Your task to perform on an android device: Open Chrome and go to the settings page Image 0: 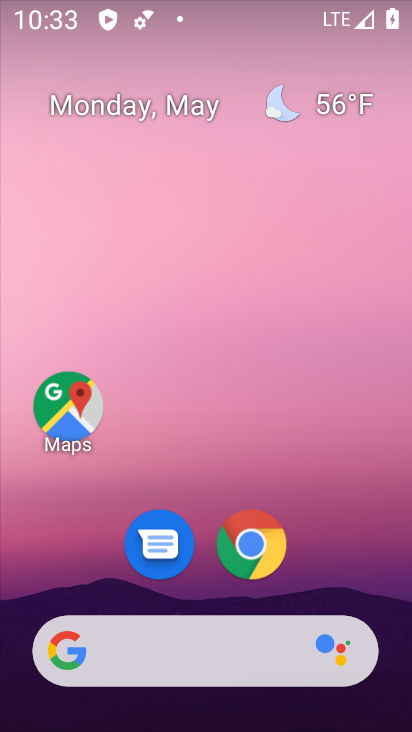
Step 0: click (251, 546)
Your task to perform on an android device: Open Chrome and go to the settings page Image 1: 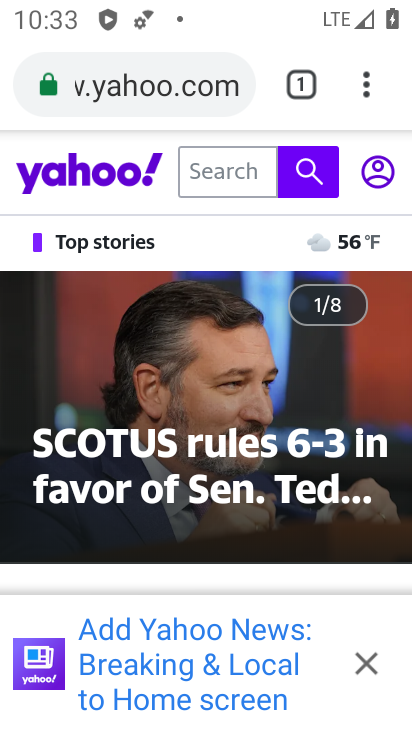
Step 1: click (367, 84)
Your task to perform on an android device: Open Chrome and go to the settings page Image 2: 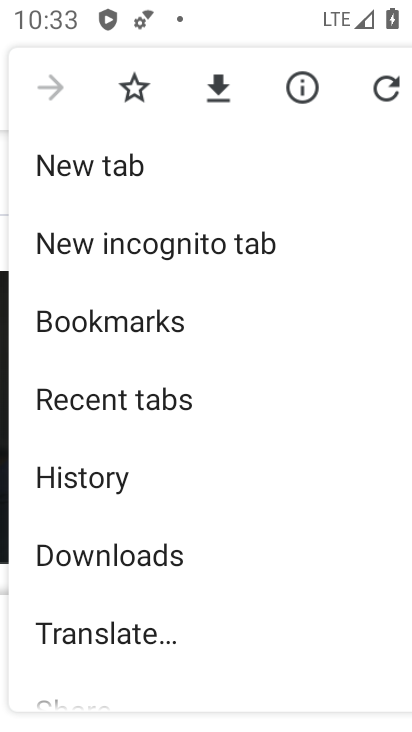
Step 2: drag from (188, 497) to (251, 413)
Your task to perform on an android device: Open Chrome and go to the settings page Image 3: 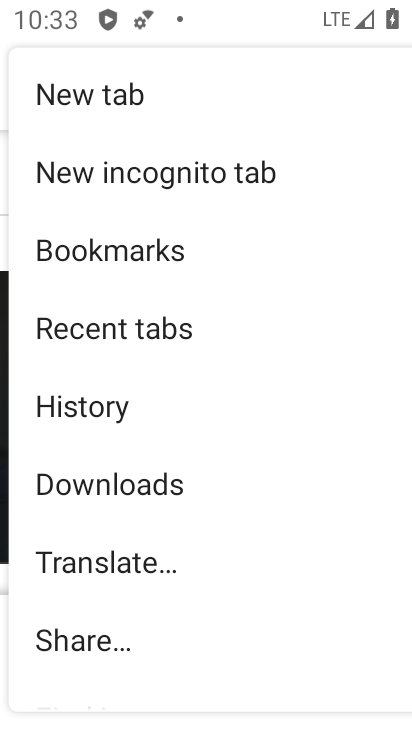
Step 3: drag from (226, 557) to (257, 479)
Your task to perform on an android device: Open Chrome and go to the settings page Image 4: 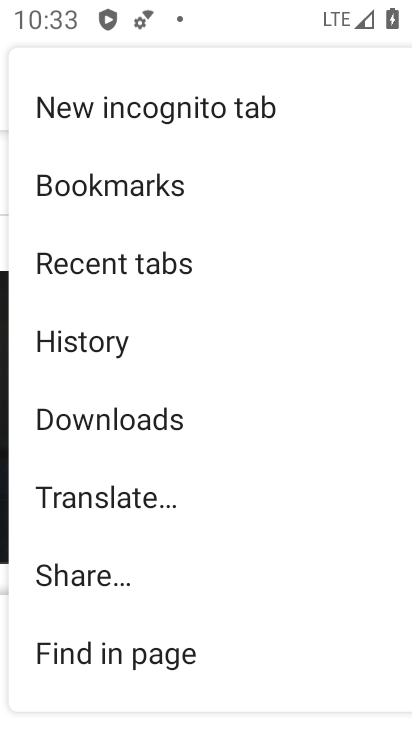
Step 4: drag from (179, 563) to (279, 370)
Your task to perform on an android device: Open Chrome and go to the settings page Image 5: 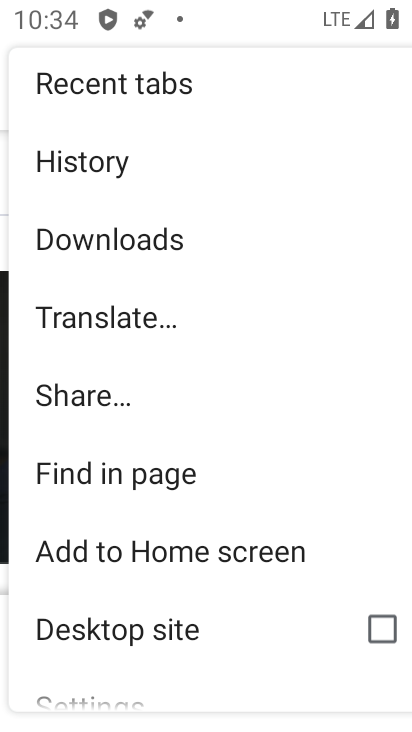
Step 5: drag from (164, 596) to (270, 374)
Your task to perform on an android device: Open Chrome and go to the settings page Image 6: 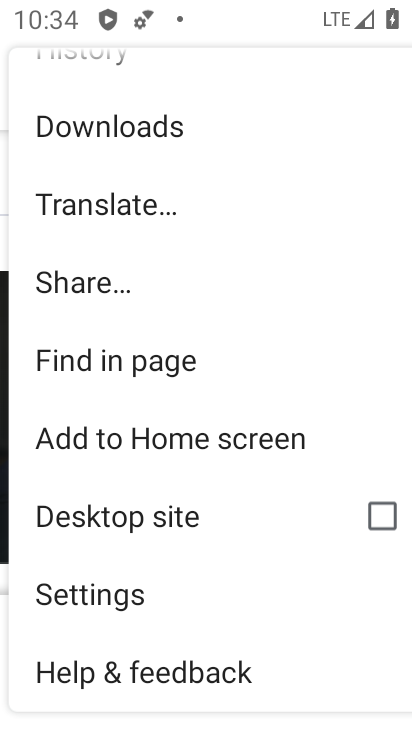
Step 6: click (77, 600)
Your task to perform on an android device: Open Chrome and go to the settings page Image 7: 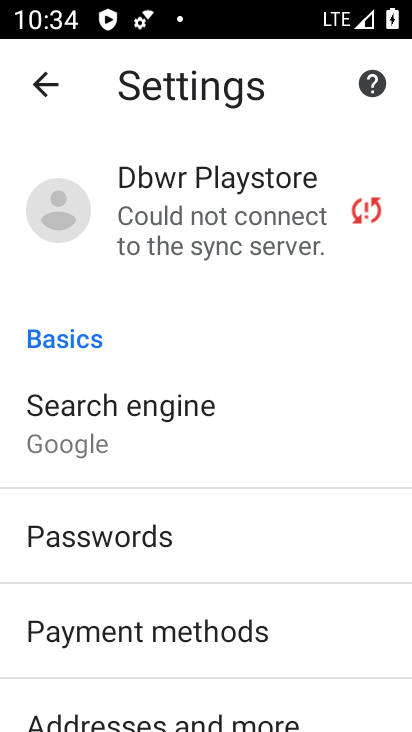
Step 7: task complete